Your task to perform on an android device: remove spam from my inbox in the gmail app Image 0: 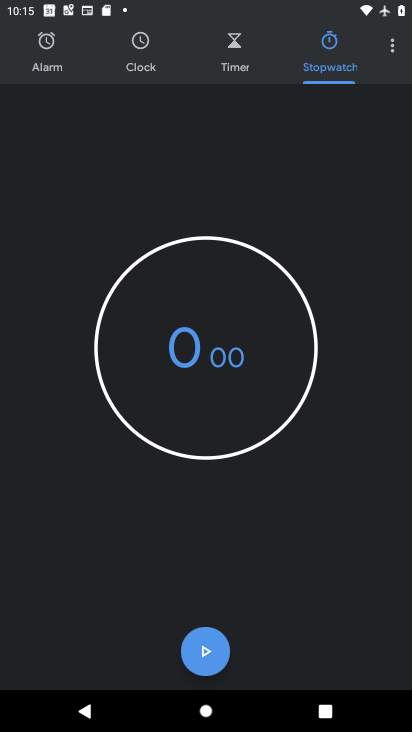
Step 0: press home button
Your task to perform on an android device: remove spam from my inbox in the gmail app Image 1: 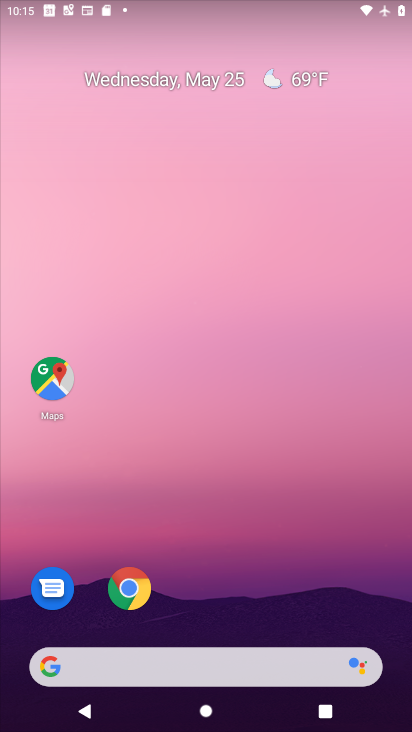
Step 1: drag from (389, 596) to (399, 122)
Your task to perform on an android device: remove spam from my inbox in the gmail app Image 2: 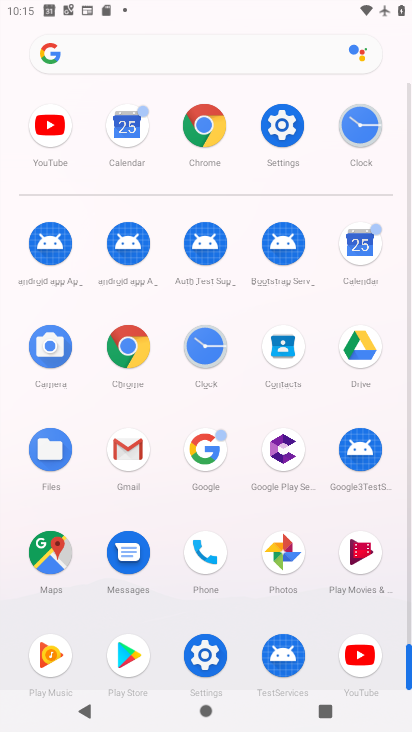
Step 2: click (140, 461)
Your task to perform on an android device: remove spam from my inbox in the gmail app Image 3: 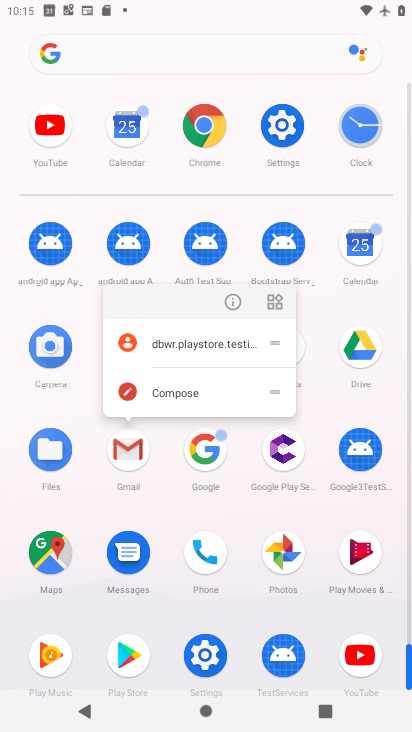
Step 3: click (140, 461)
Your task to perform on an android device: remove spam from my inbox in the gmail app Image 4: 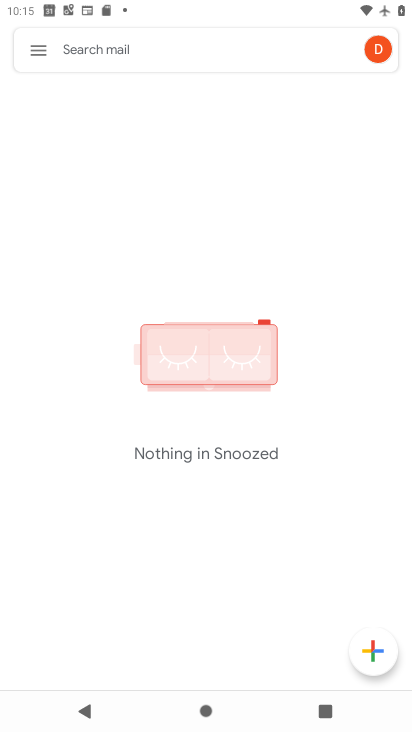
Step 4: click (40, 55)
Your task to perform on an android device: remove spam from my inbox in the gmail app Image 5: 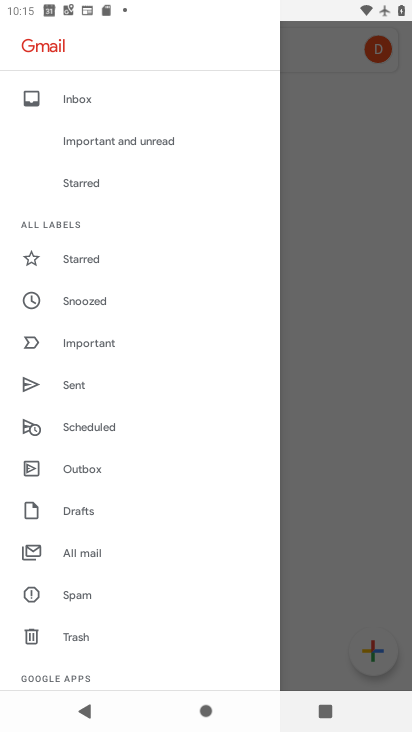
Step 5: drag from (203, 391) to (216, 313)
Your task to perform on an android device: remove spam from my inbox in the gmail app Image 6: 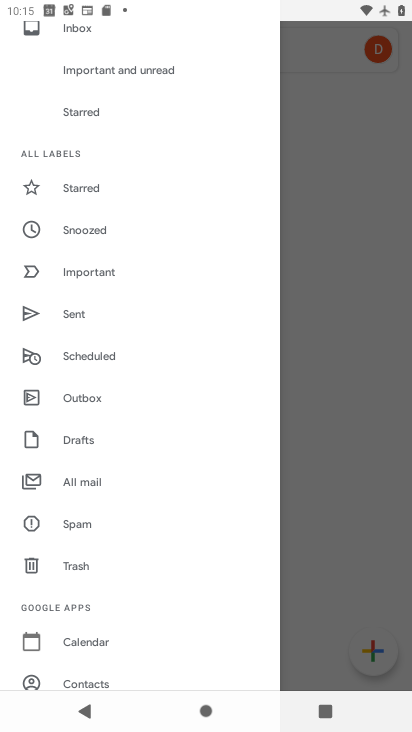
Step 6: drag from (234, 425) to (237, 348)
Your task to perform on an android device: remove spam from my inbox in the gmail app Image 7: 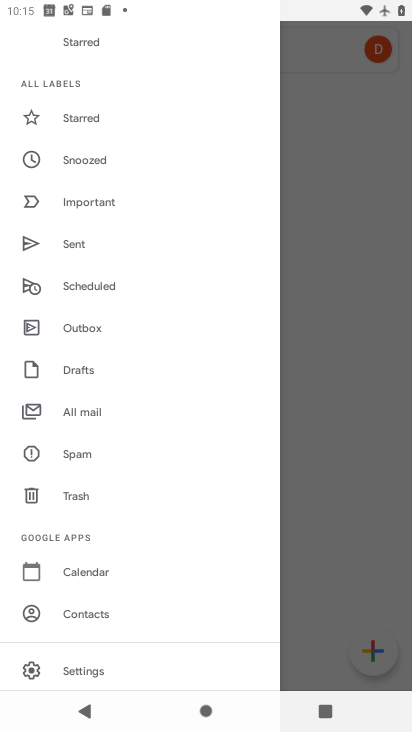
Step 7: drag from (212, 448) to (229, 330)
Your task to perform on an android device: remove spam from my inbox in the gmail app Image 8: 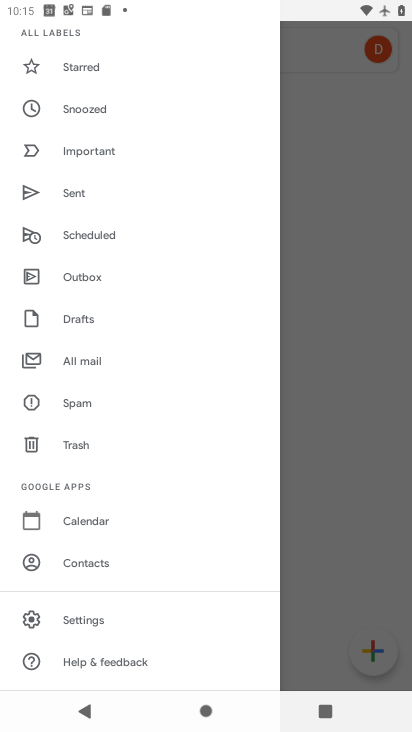
Step 8: click (101, 403)
Your task to perform on an android device: remove spam from my inbox in the gmail app Image 9: 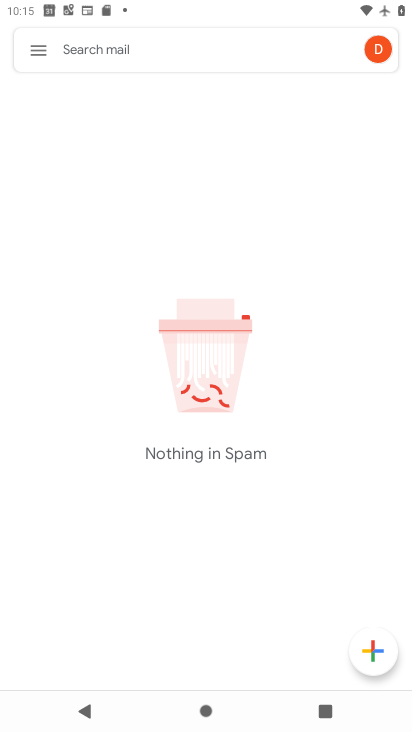
Step 9: task complete